Your task to perform on an android device: Is it going to rain this weekend? Image 0: 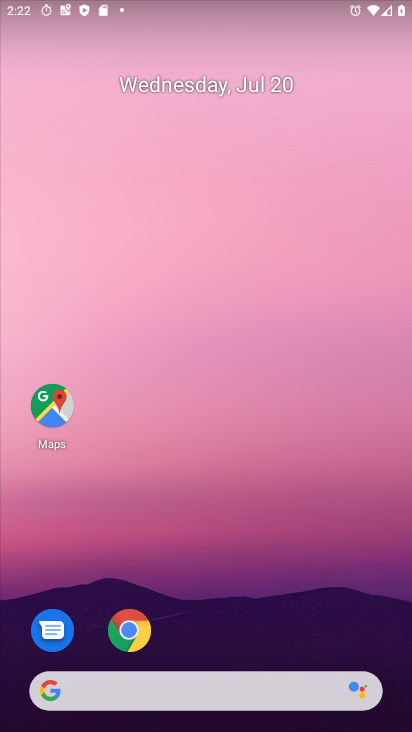
Step 0: press home button
Your task to perform on an android device: Is it going to rain this weekend? Image 1: 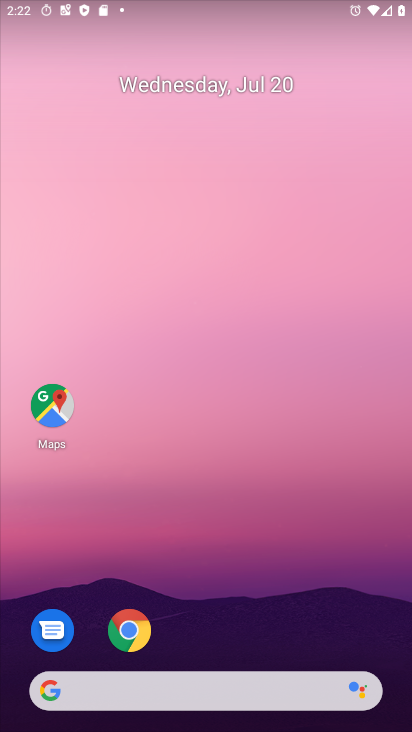
Step 1: click (155, 695)
Your task to perform on an android device: Is it going to rain this weekend? Image 2: 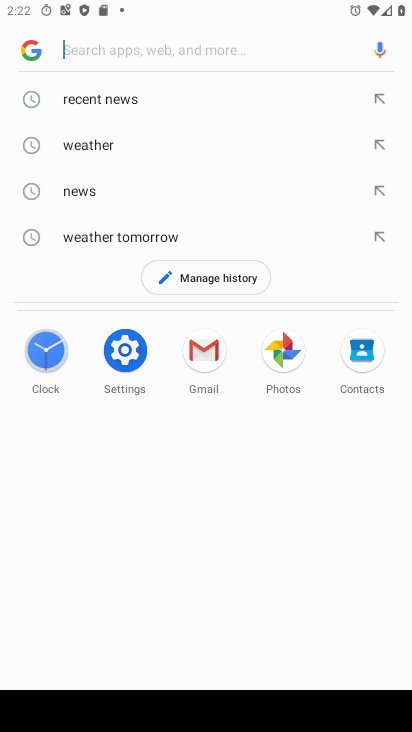
Step 2: click (113, 146)
Your task to perform on an android device: Is it going to rain this weekend? Image 3: 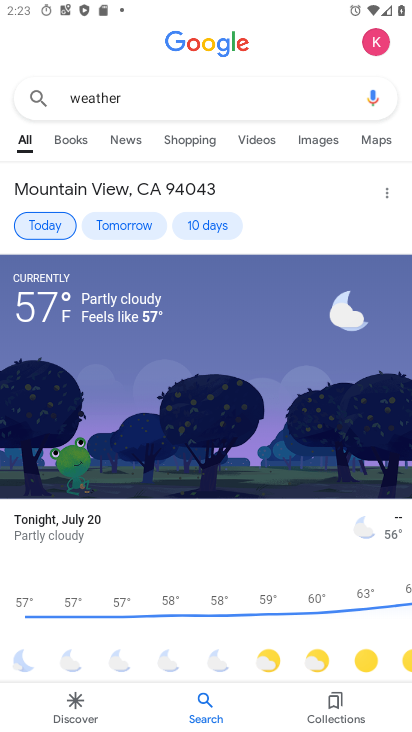
Step 3: click (211, 226)
Your task to perform on an android device: Is it going to rain this weekend? Image 4: 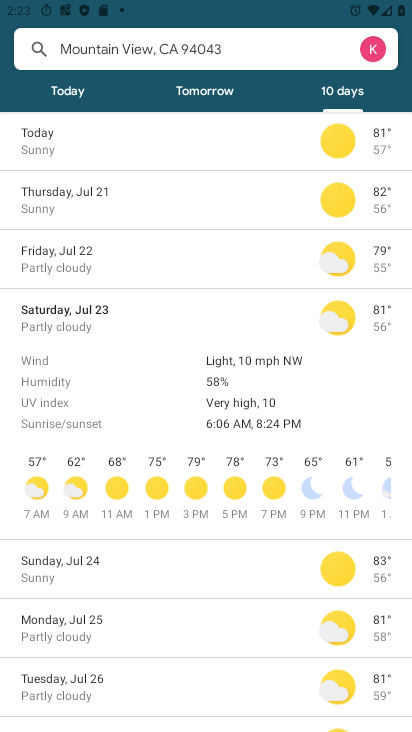
Step 4: task complete